Your task to perform on an android device: Go to location settings Image 0: 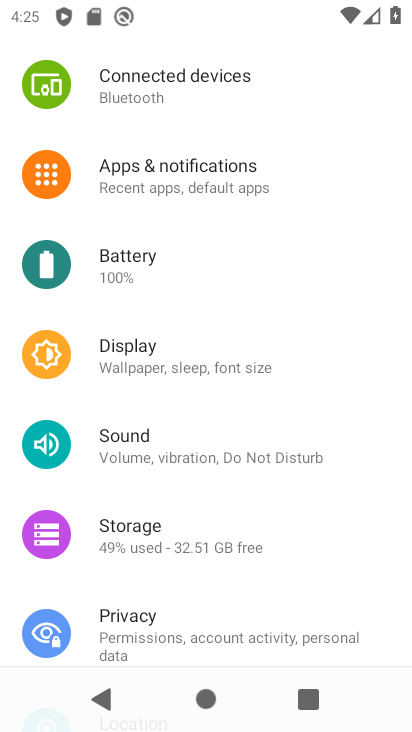
Step 0: click (217, 596)
Your task to perform on an android device: Go to location settings Image 1: 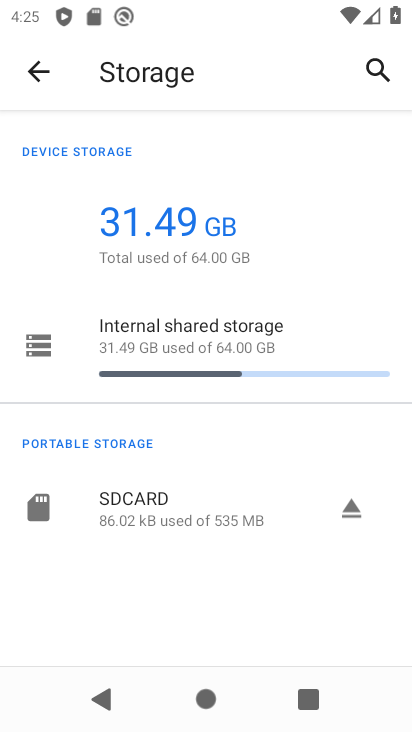
Step 1: press home button
Your task to perform on an android device: Go to location settings Image 2: 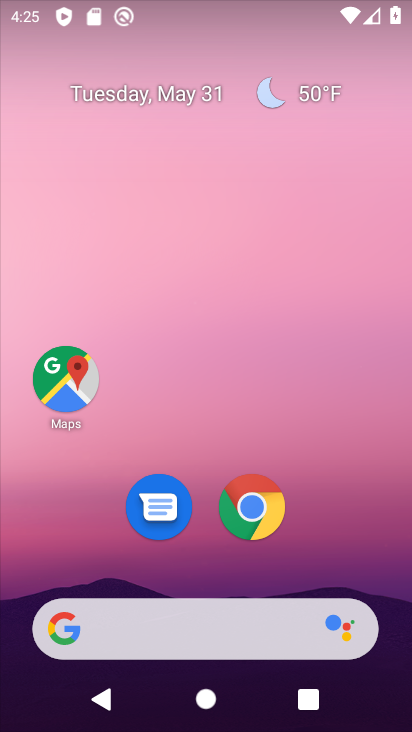
Step 2: drag from (354, 509) to (350, 3)
Your task to perform on an android device: Go to location settings Image 3: 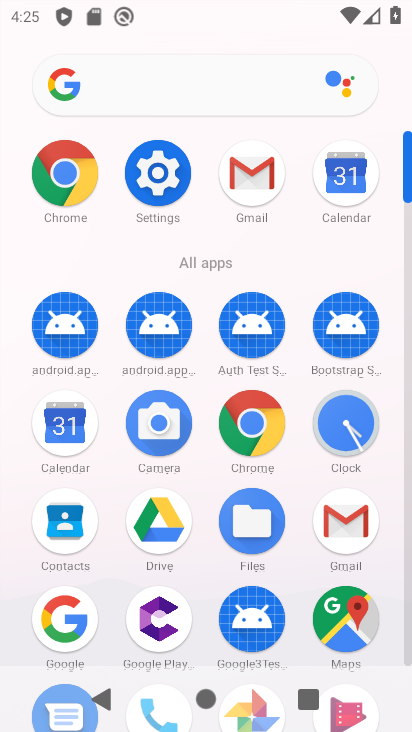
Step 3: click (162, 166)
Your task to perform on an android device: Go to location settings Image 4: 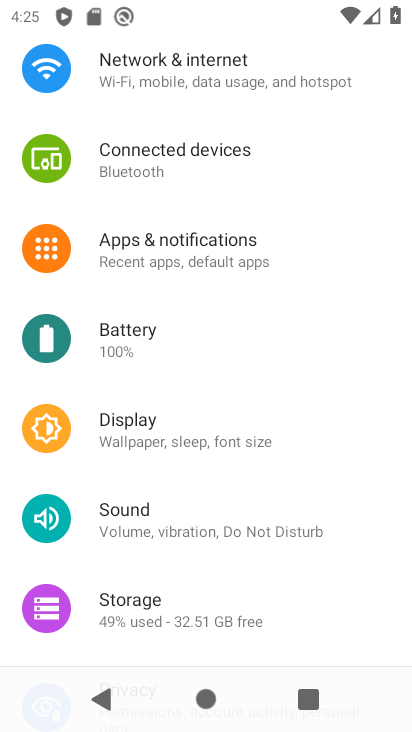
Step 4: drag from (179, 453) to (170, 217)
Your task to perform on an android device: Go to location settings Image 5: 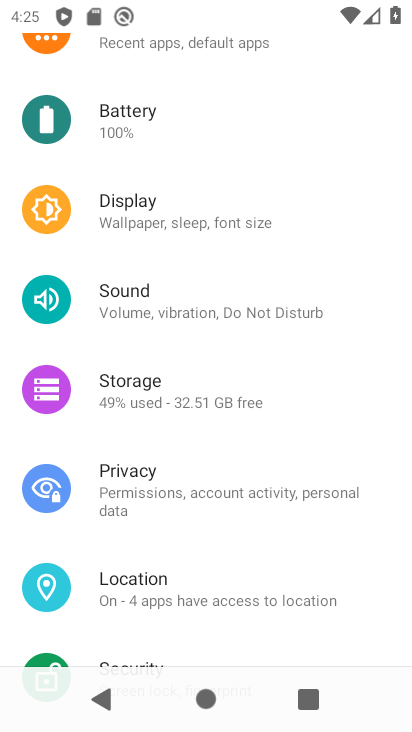
Step 5: click (197, 586)
Your task to perform on an android device: Go to location settings Image 6: 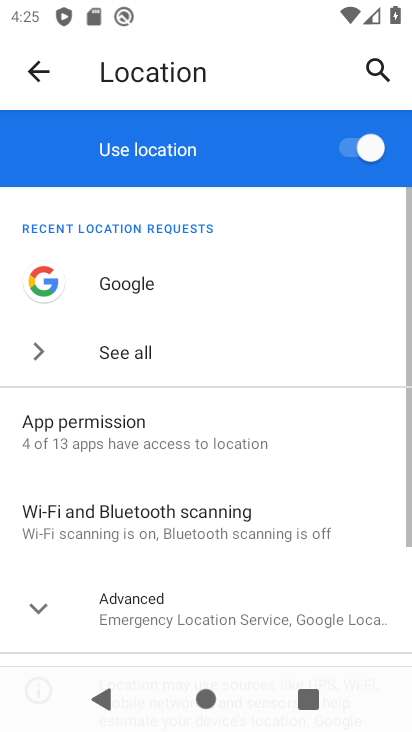
Step 6: task complete